Your task to perform on an android device: Open sound settings Image 0: 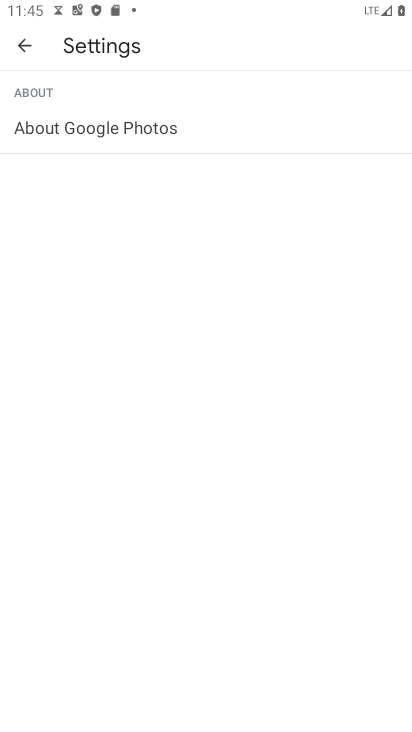
Step 0: press back button
Your task to perform on an android device: Open sound settings Image 1: 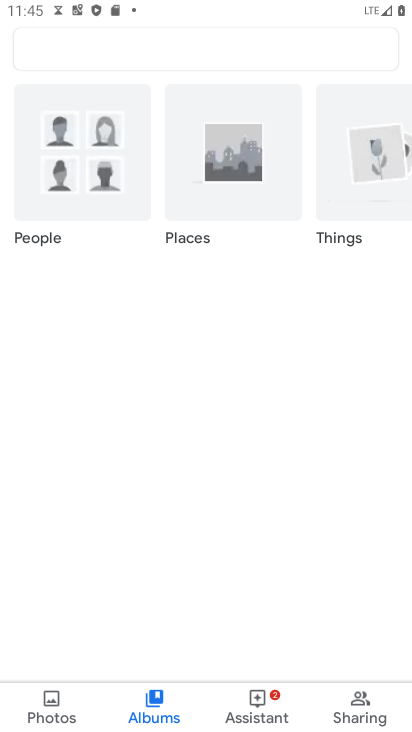
Step 1: drag from (7, 599) to (184, 188)
Your task to perform on an android device: Open sound settings Image 2: 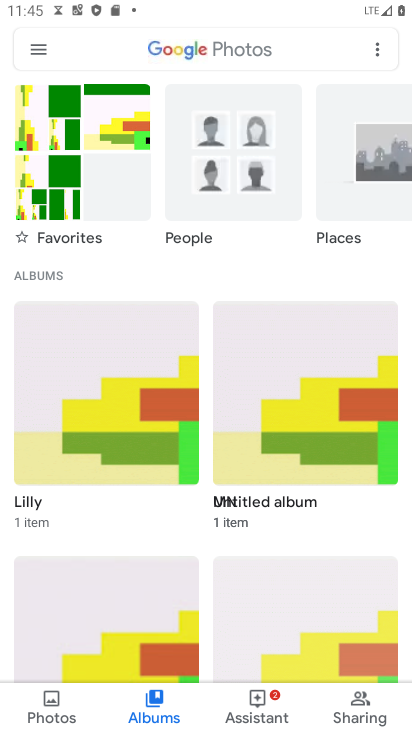
Step 2: press home button
Your task to perform on an android device: Open sound settings Image 3: 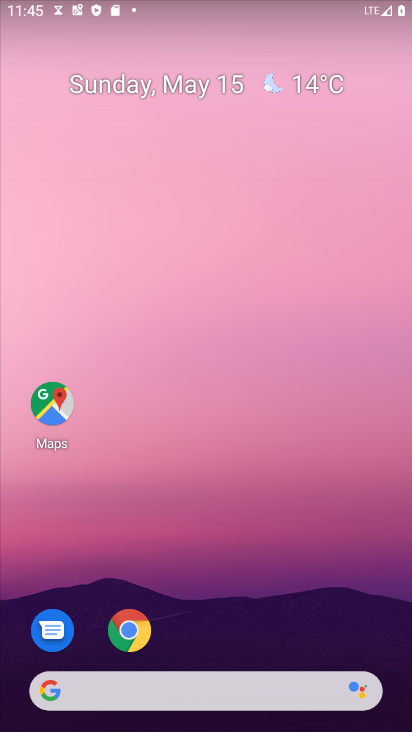
Step 3: drag from (17, 513) to (235, 83)
Your task to perform on an android device: Open sound settings Image 4: 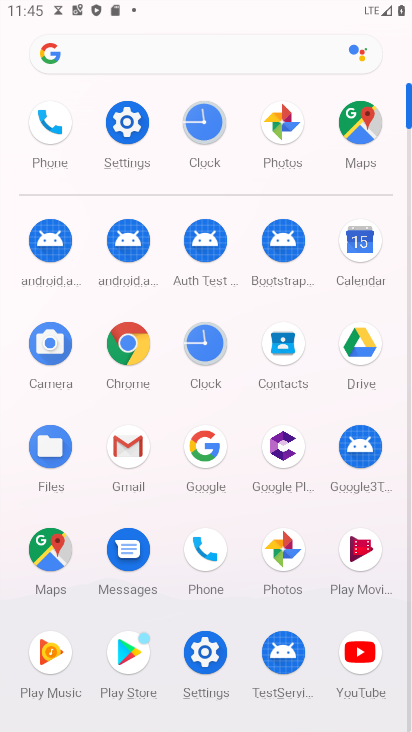
Step 4: click (101, 120)
Your task to perform on an android device: Open sound settings Image 5: 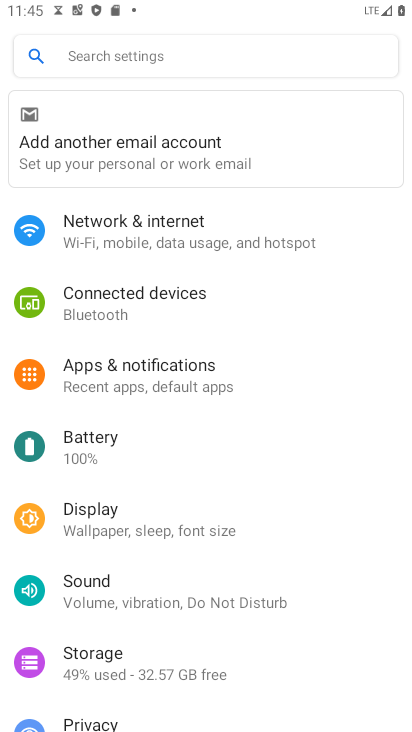
Step 5: click (100, 598)
Your task to perform on an android device: Open sound settings Image 6: 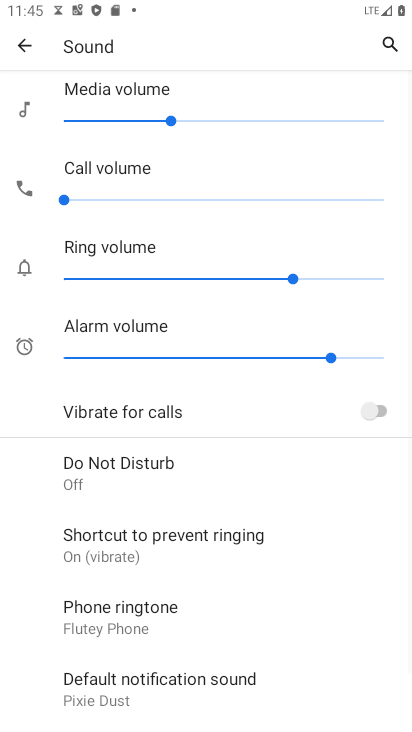
Step 6: task complete